Your task to perform on an android device: Open the web browser Image 0: 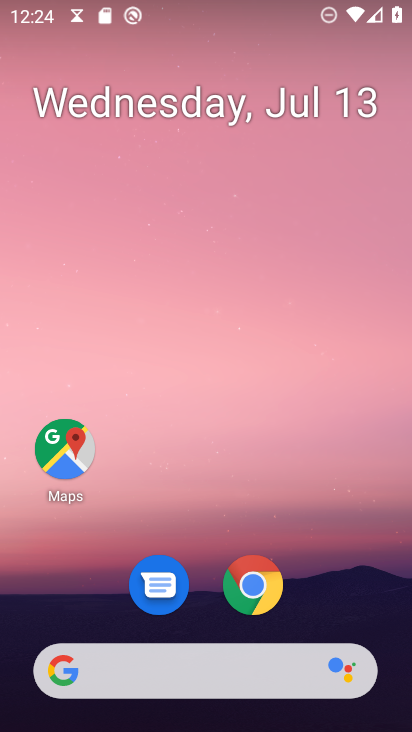
Step 0: click (247, 599)
Your task to perform on an android device: Open the web browser Image 1: 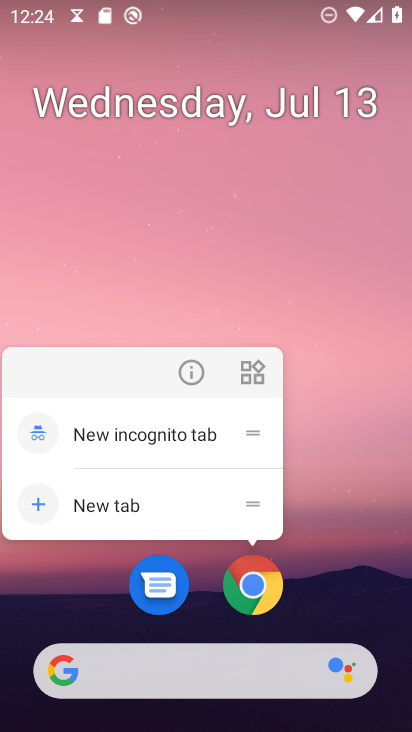
Step 1: click (253, 593)
Your task to perform on an android device: Open the web browser Image 2: 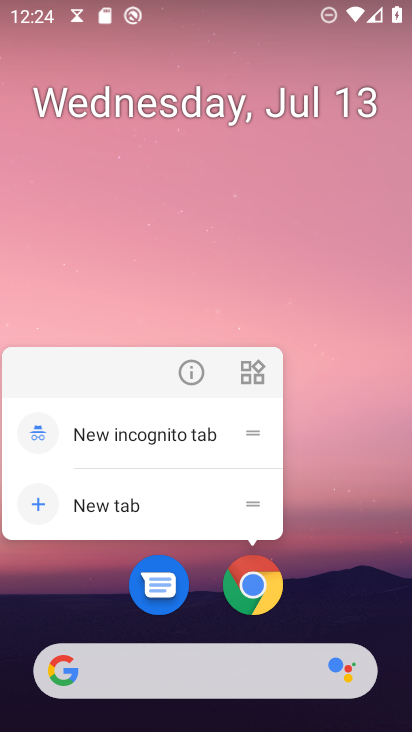
Step 2: click (254, 591)
Your task to perform on an android device: Open the web browser Image 3: 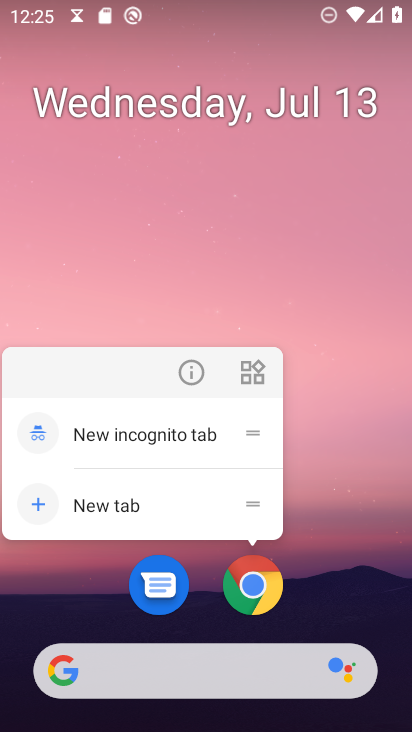
Step 3: click (258, 586)
Your task to perform on an android device: Open the web browser Image 4: 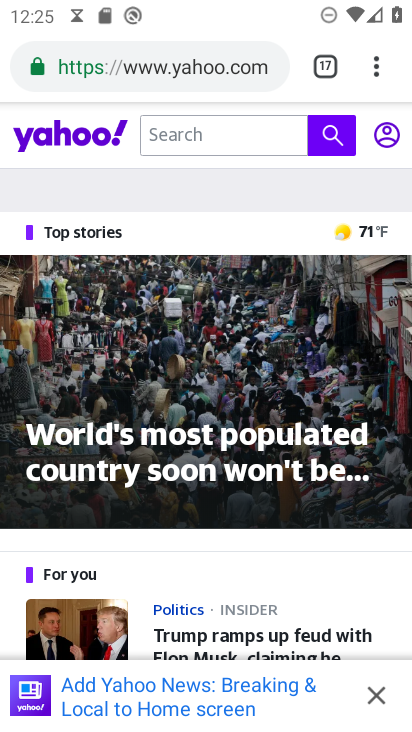
Step 4: task complete